Your task to perform on an android device: Open Google Image 0: 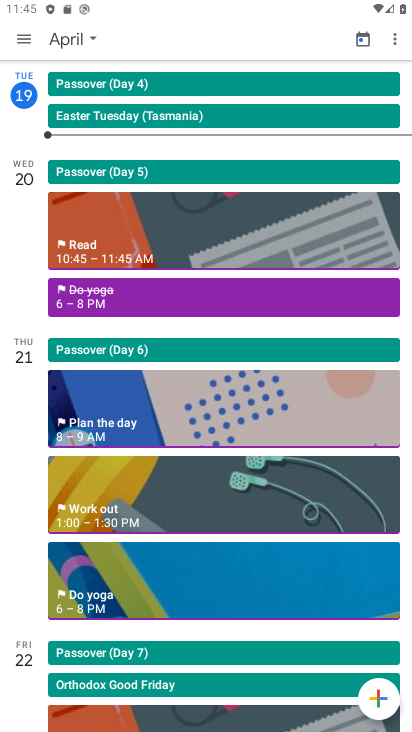
Step 0: press home button
Your task to perform on an android device: Open Google Image 1: 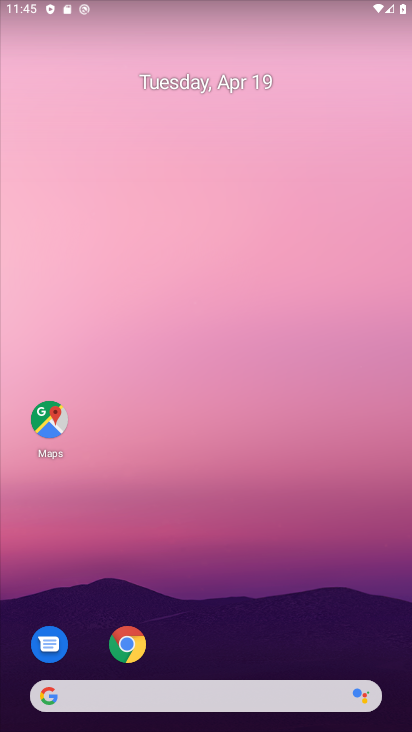
Step 1: click (44, 696)
Your task to perform on an android device: Open Google Image 2: 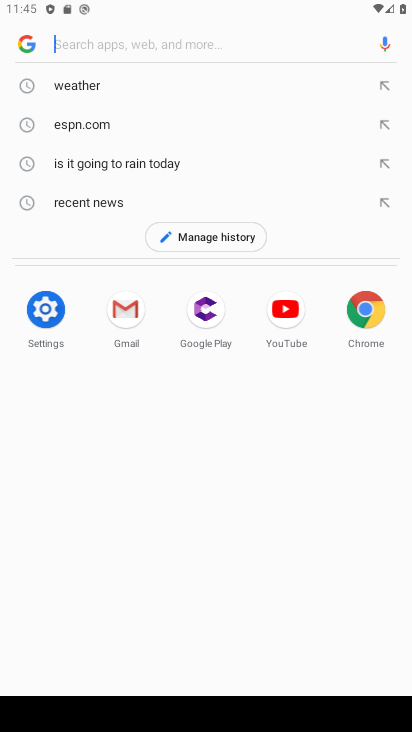
Step 2: task complete